Your task to perform on an android device: star an email in the gmail app Image 0: 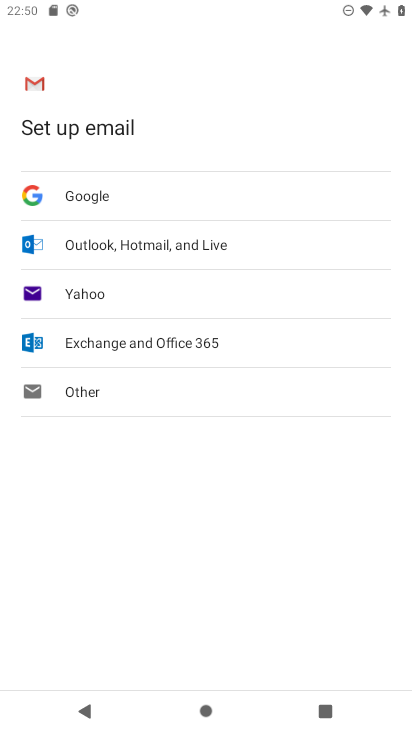
Step 0: press home button
Your task to perform on an android device: star an email in the gmail app Image 1: 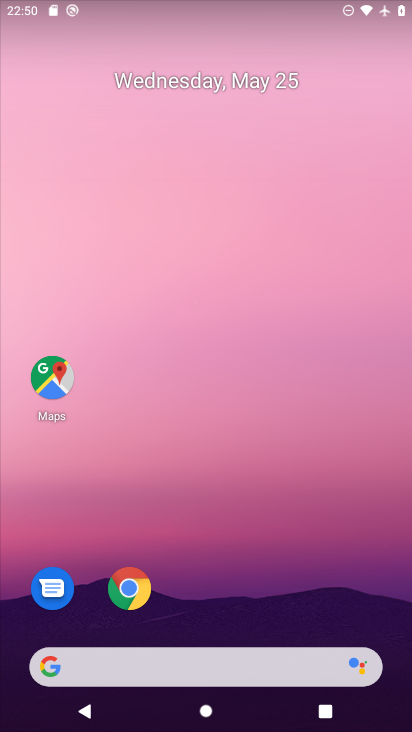
Step 1: drag from (257, 581) to (310, 39)
Your task to perform on an android device: star an email in the gmail app Image 2: 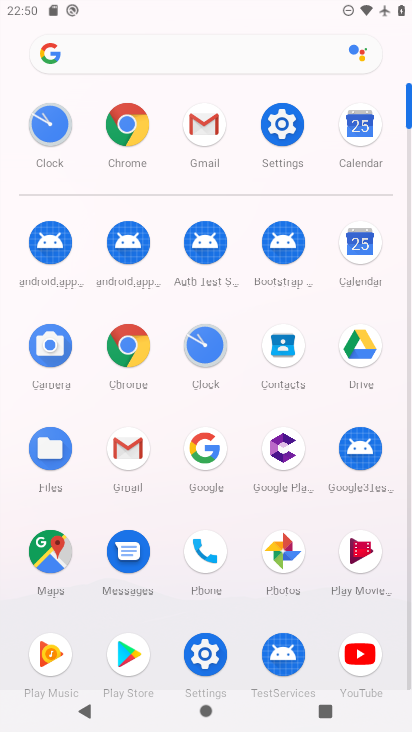
Step 2: click (221, 105)
Your task to perform on an android device: star an email in the gmail app Image 3: 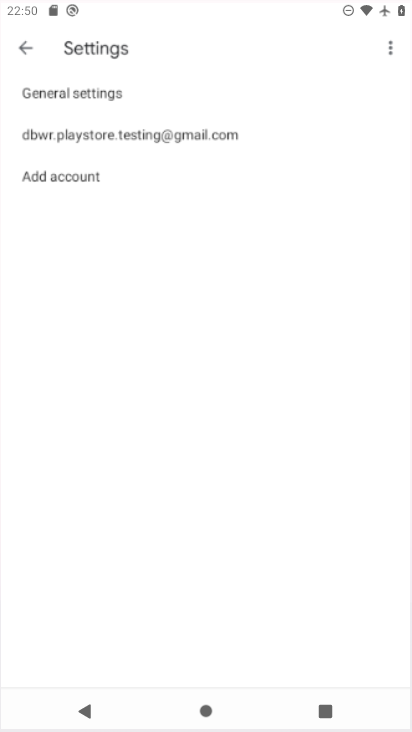
Step 3: click (217, 112)
Your task to perform on an android device: star an email in the gmail app Image 4: 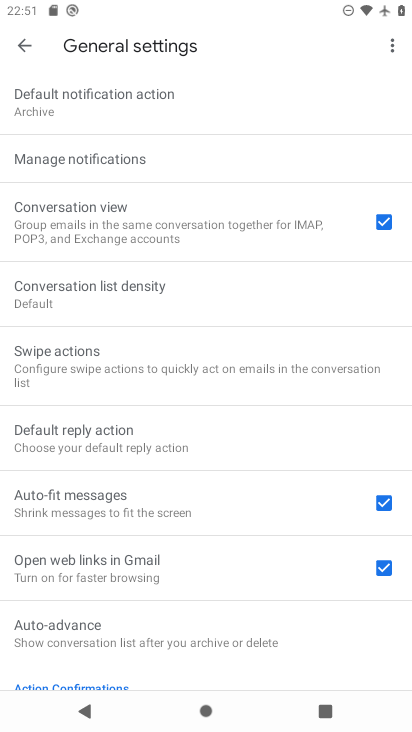
Step 4: click (25, 55)
Your task to perform on an android device: star an email in the gmail app Image 5: 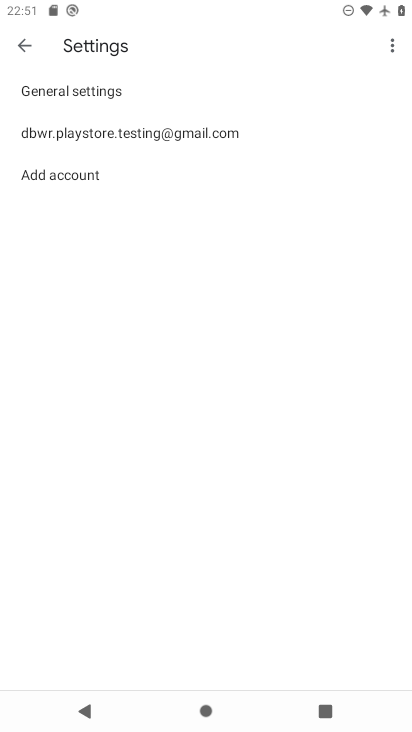
Step 5: click (24, 54)
Your task to perform on an android device: star an email in the gmail app Image 6: 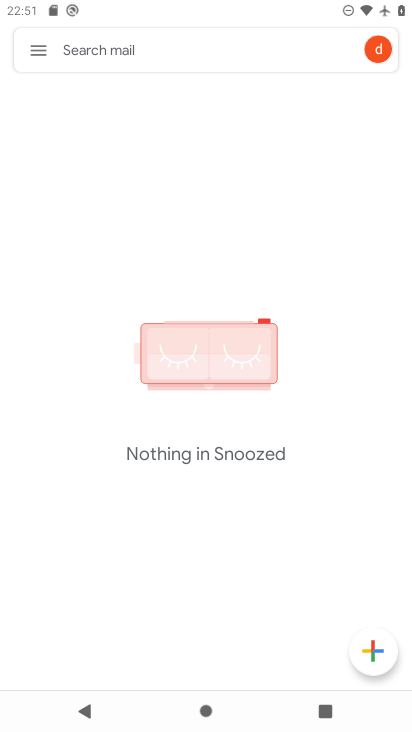
Step 6: click (33, 52)
Your task to perform on an android device: star an email in the gmail app Image 7: 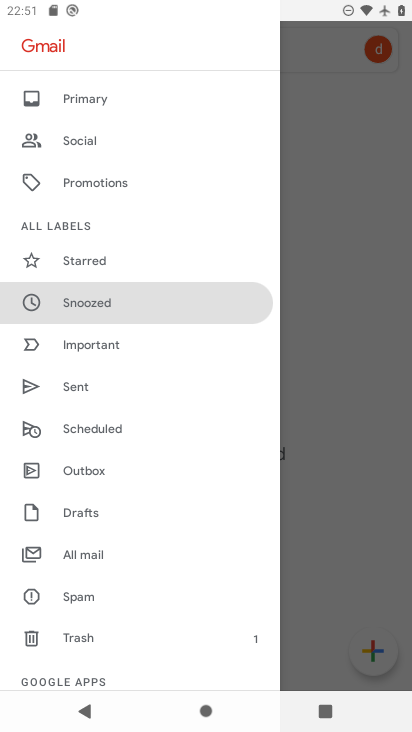
Step 7: drag from (69, 267) to (96, 495)
Your task to perform on an android device: star an email in the gmail app Image 8: 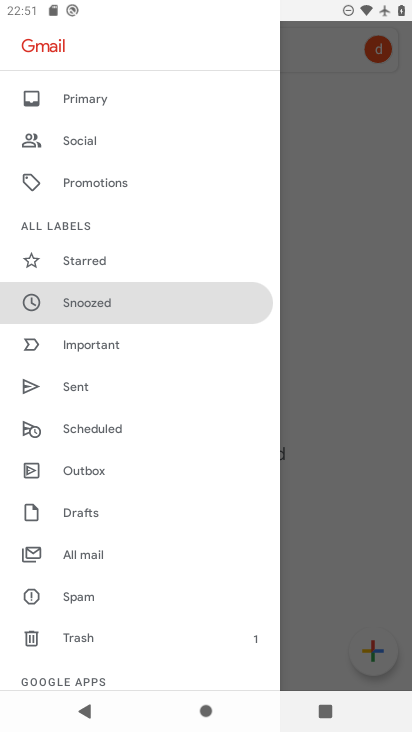
Step 8: click (81, 568)
Your task to perform on an android device: star an email in the gmail app Image 9: 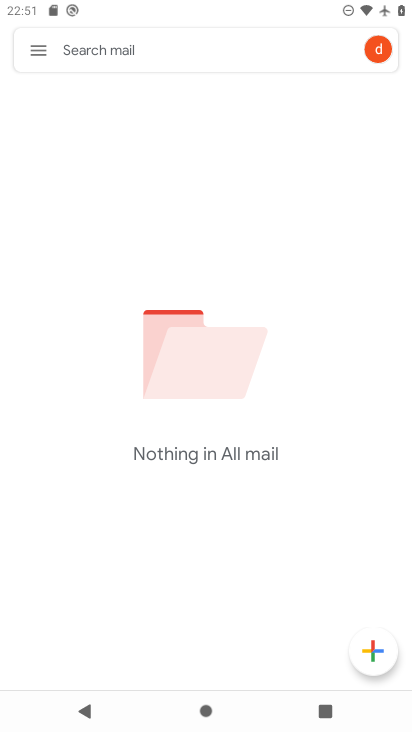
Step 9: task complete